Your task to perform on an android device: Open the calendar app, open the side menu, and click the "Day" option Image 0: 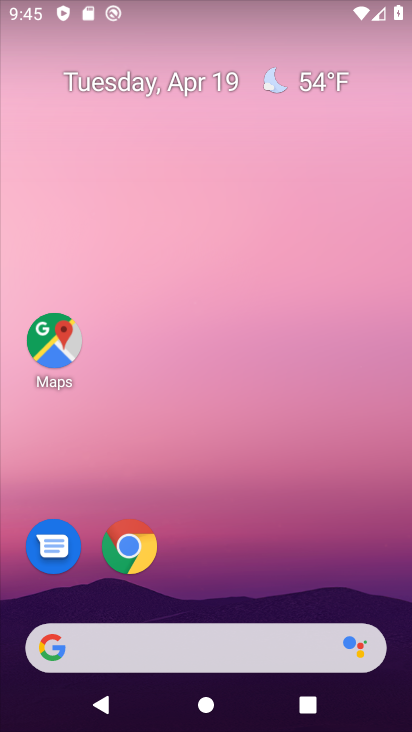
Step 0: drag from (210, 458) to (173, 107)
Your task to perform on an android device: Open the calendar app, open the side menu, and click the "Day" option Image 1: 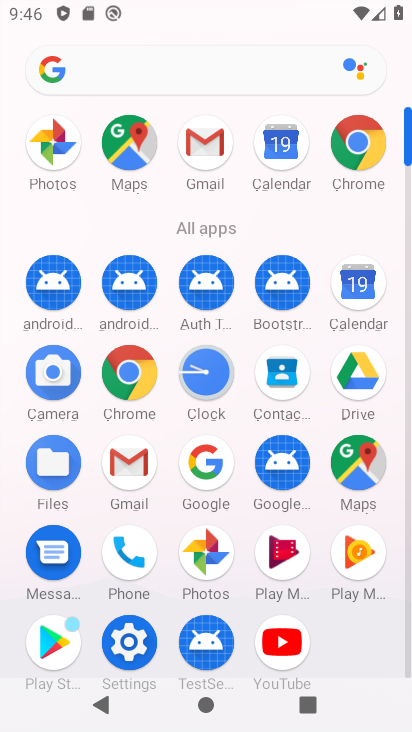
Step 1: click (360, 279)
Your task to perform on an android device: Open the calendar app, open the side menu, and click the "Day" option Image 2: 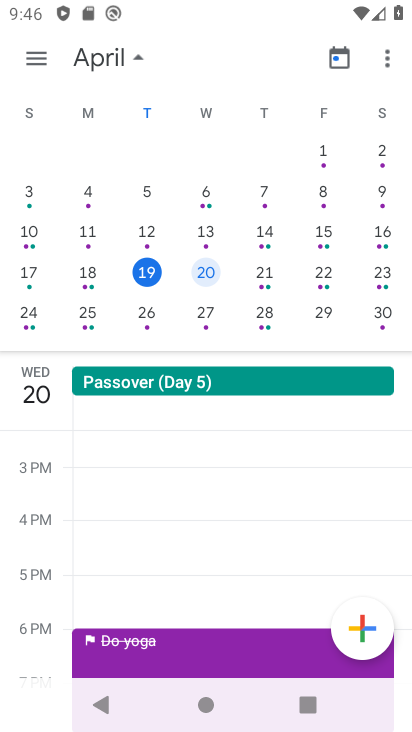
Step 2: click (34, 52)
Your task to perform on an android device: Open the calendar app, open the side menu, and click the "Day" option Image 3: 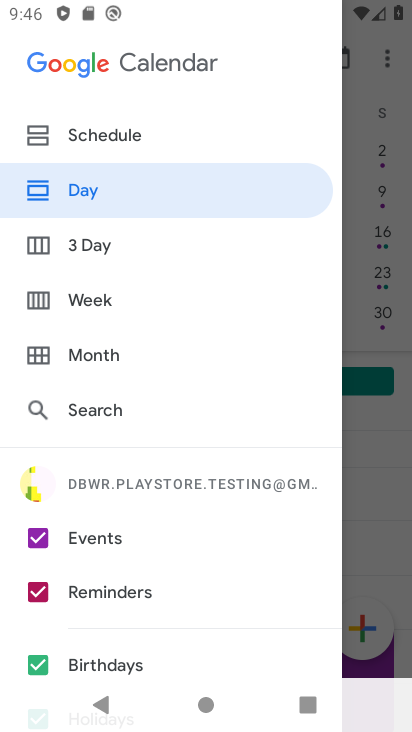
Step 3: click (205, 203)
Your task to perform on an android device: Open the calendar app, open the side menu, and click the "Day" option Image 4: 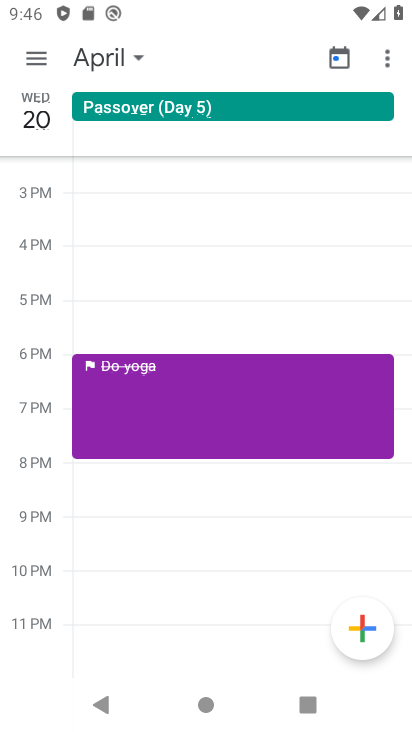
Step 4: task complete